Your task to perform on an android device: install app "Adobe Acrobat Reader" Image 0: 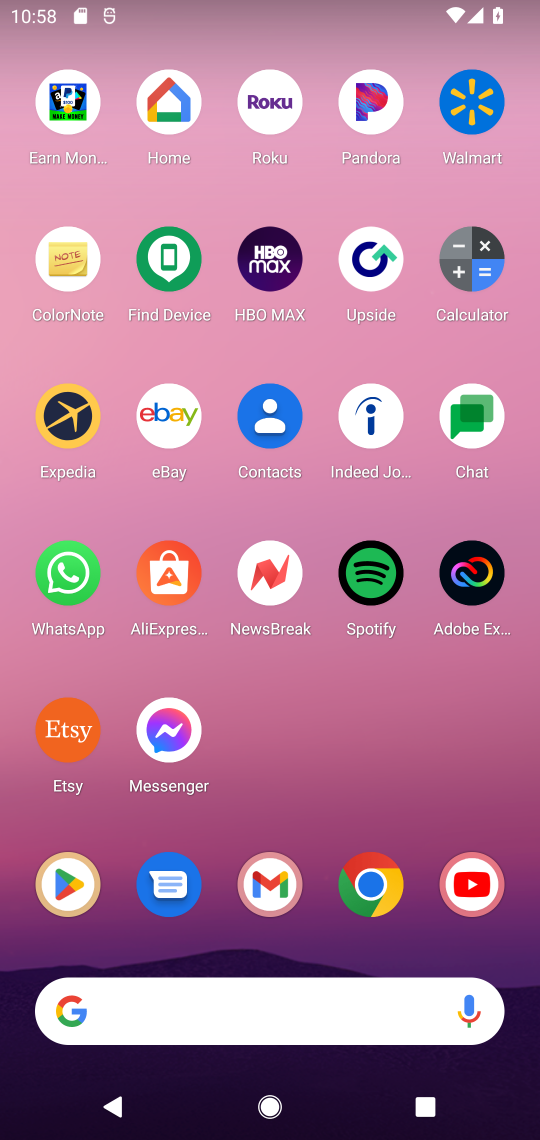
Step 0: click (75, 900)
Your task to perform on an android device: install app "Adobe Acrobat Reader" Image 1: 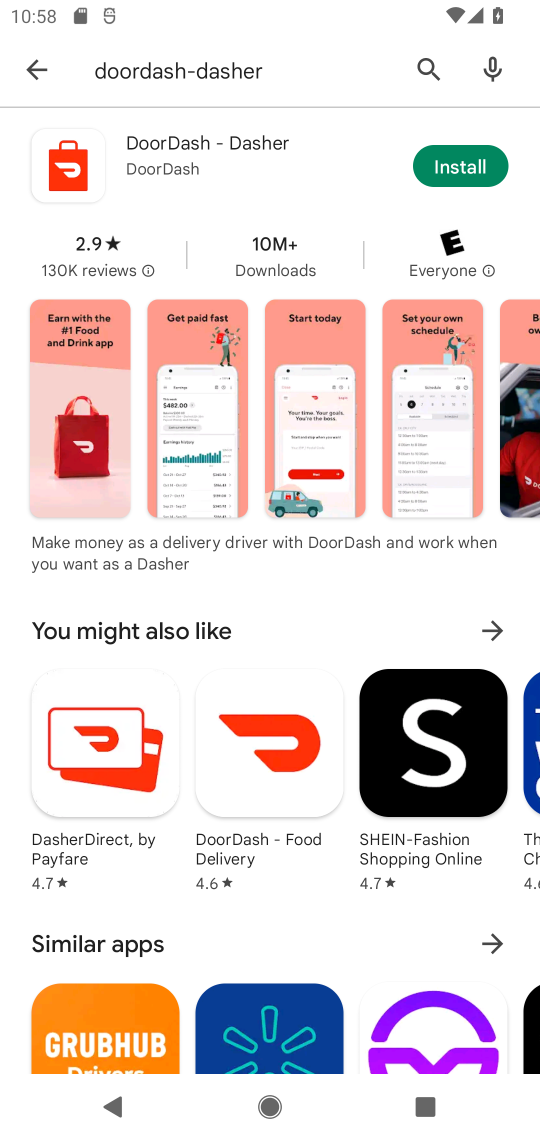
Step 1: click (291, 78)
Your task to perform on an android device: install app "Adobe Acrobat Reader" Image 2: 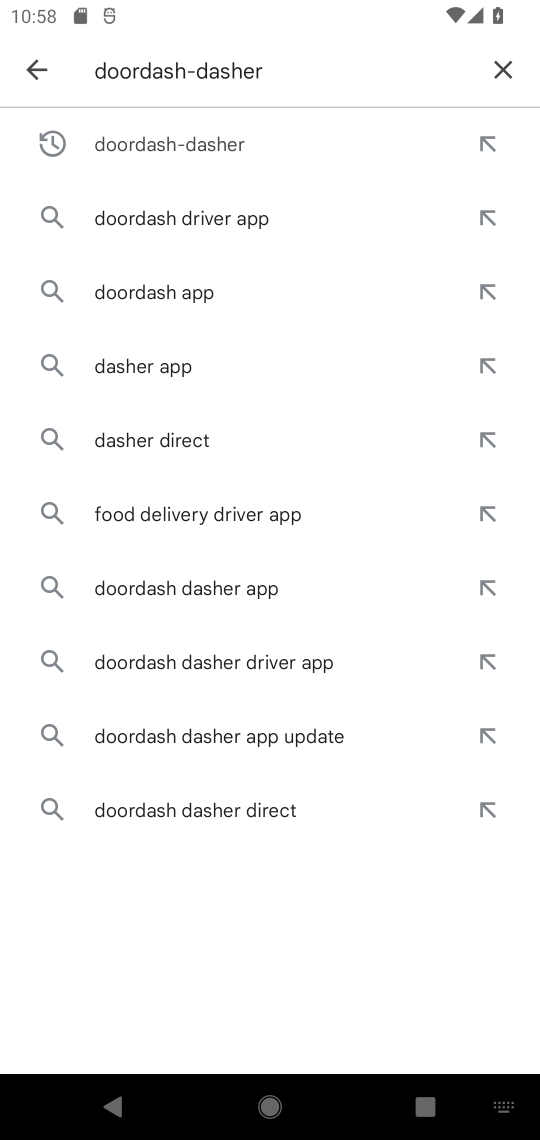
Step 2: click (484, 68)
Your task to perform on an android device: install app "Adobe Acrobat Reader" Image 3: 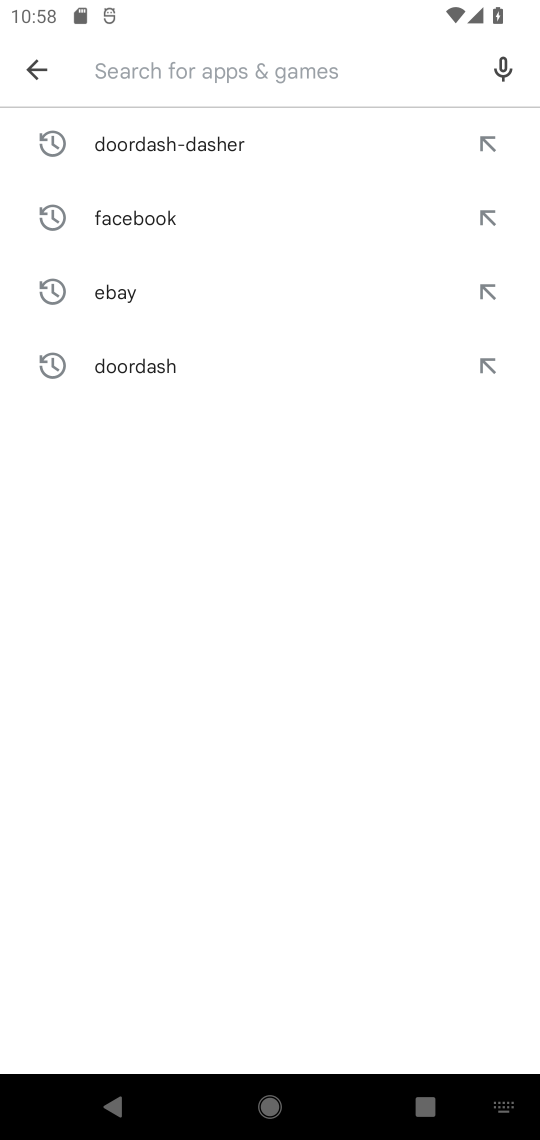
Step 3: type "Adobe Acrobat reader"
Your task to perform on an android device: install app "Adobe Acrobat Reader" Image 4: 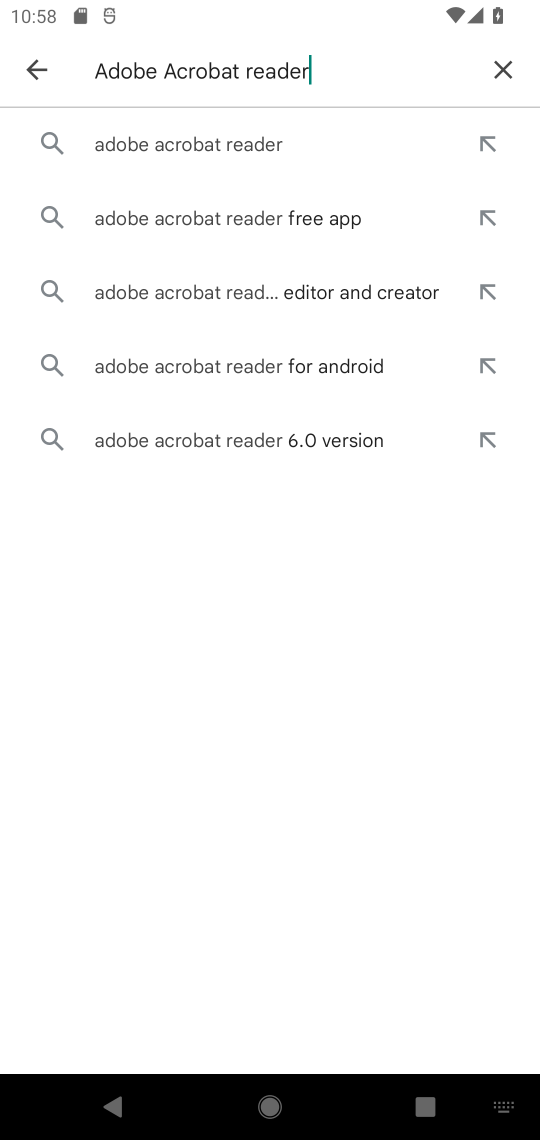
Step 4: click (210, 148)
Your task to perform on an android device: install app "Adobe Acrobat Reader" Image 5: 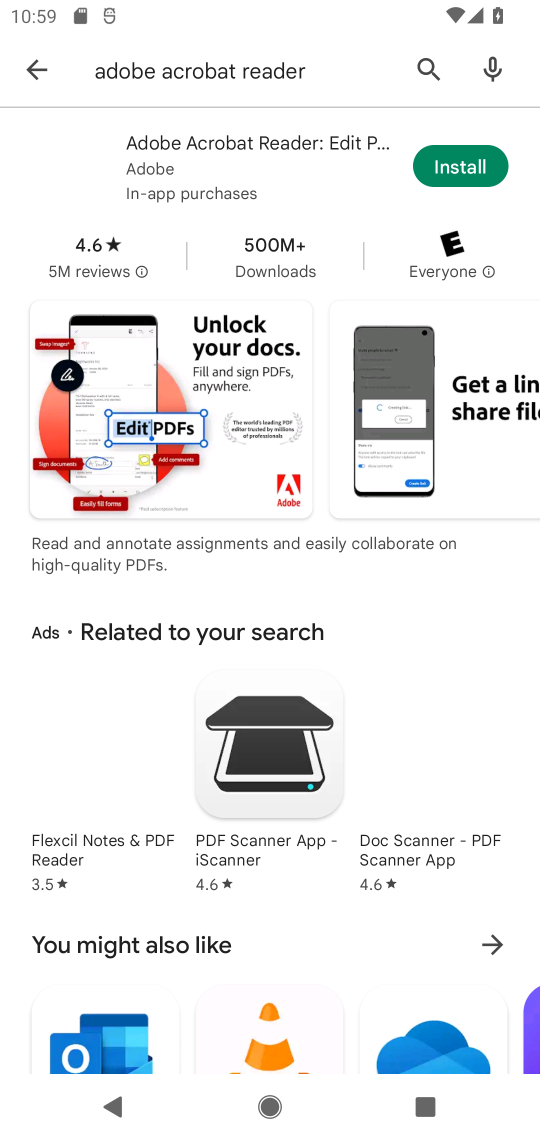
Step 5: click (446, 171)
Your task to perform on an android device: install app "Adobe Acrobat Reader" Image 6: 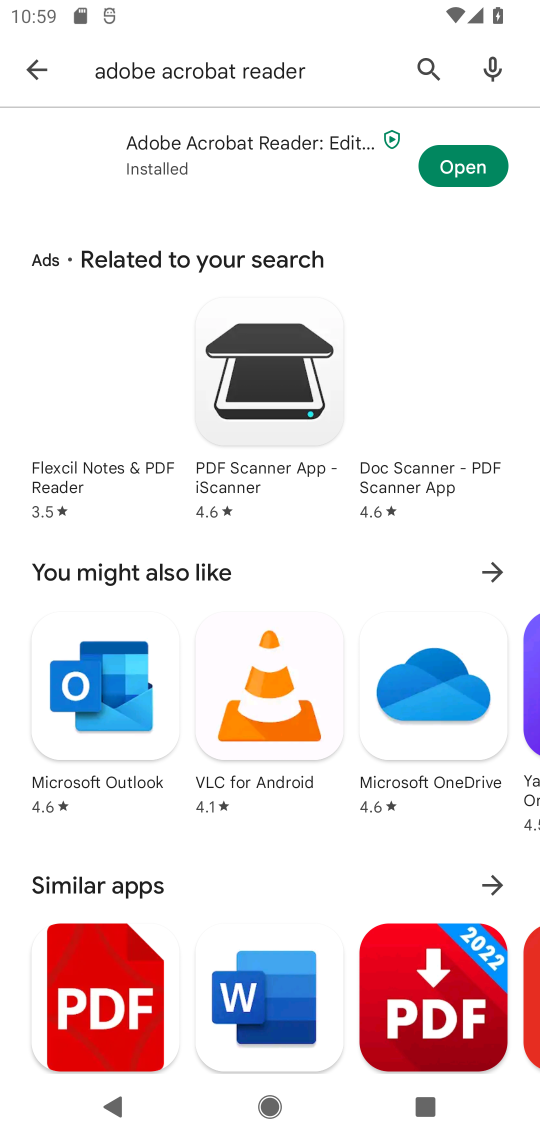
Step 6: task complete